Your task to perform on an android device: add a contact in the contacts app Image 0: 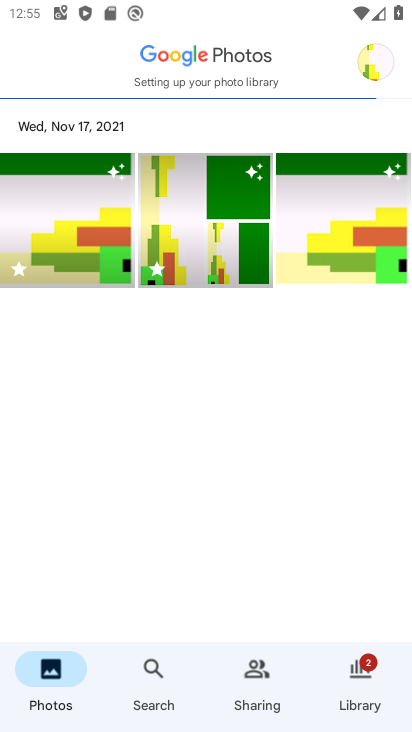
Step 0: press home button
Your task to perform on an android device: add a contact in the contacts app Image 1: 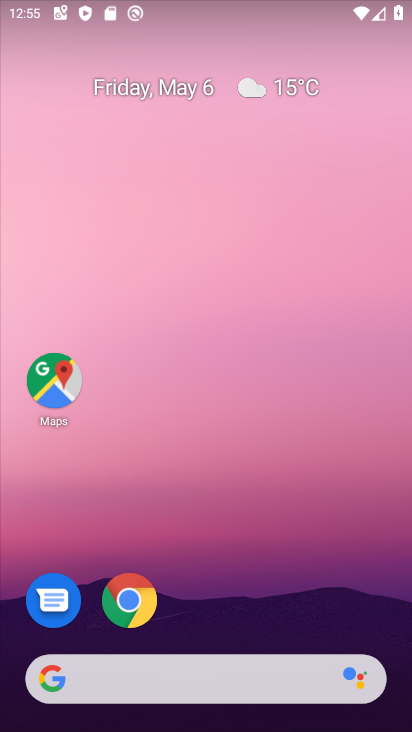
Step 1: drag from (318, 619) to (332, 165)
Your task to perform on an android device: add a contact in the contacts app Image 2: 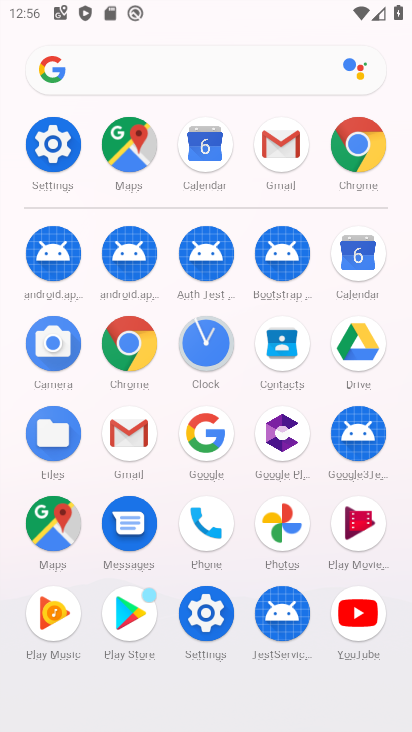
Step 2: click (279, 358)
Your task to perform on an android device: add a contact in the contacts app Image 3: 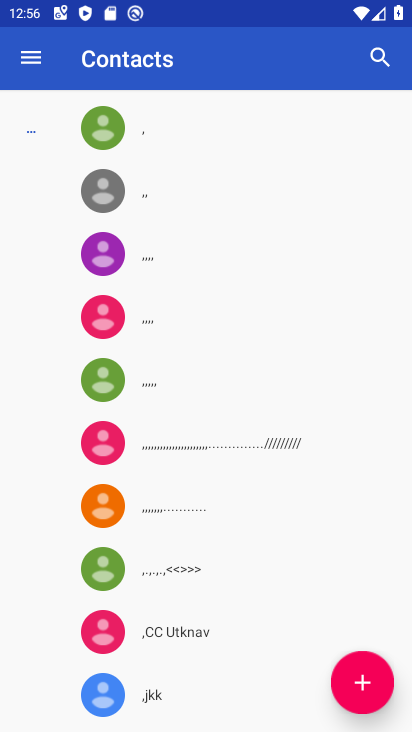
Step 3: click (359, 684)
Your task to perform on an android device: add a contact in the contacts app Image 4: 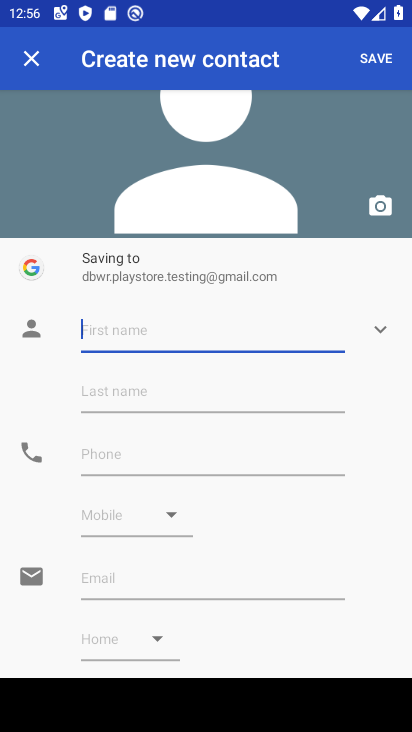
Step 4: type "ritu"
Your task to perform on an android device: add a contact in the contacts app Image 5: 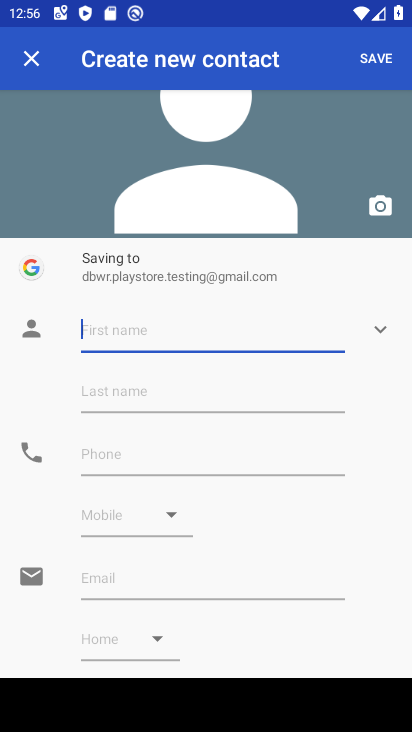
Step 5: click (382, 69)
Your task to perform on an android device: add a contact in the contacts app Image 6: 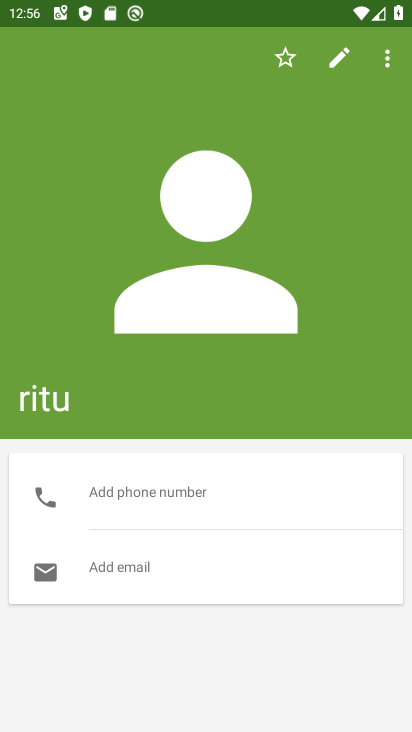
Step 6: task complete